Your task to perform on an android device: toggle sleep mode Image 0: 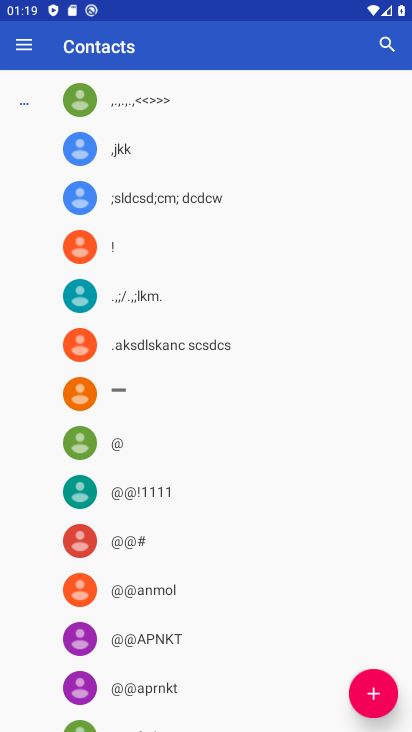
Step 0: press home button
Your task to perform on an android device: toggle sleep mode Image 1: 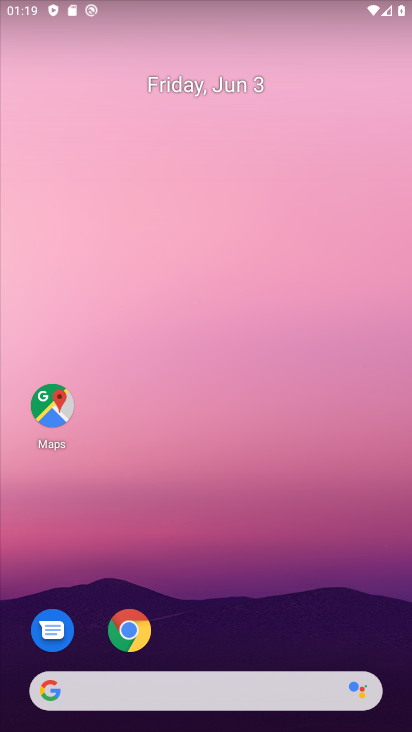
Step 1: drag from (217, 649) to (208, 228)
Your task to perform on an android device: toggle sleep mode Image 2: 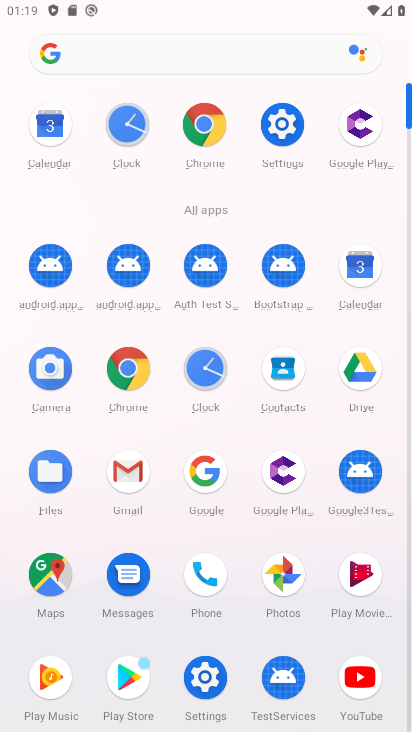
Step 2: click (290, 136)
Your task to perform on an android device: toggle sleep mode Image 3: 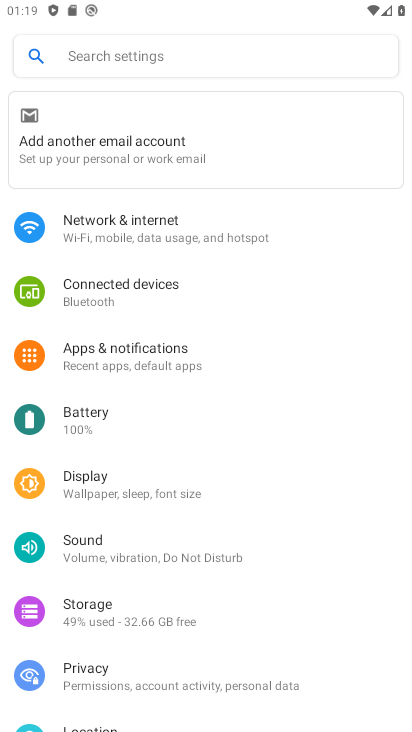
Step 3: click (148, 503)
Your task to perform on an android device: toggle sleep mode Image 4: 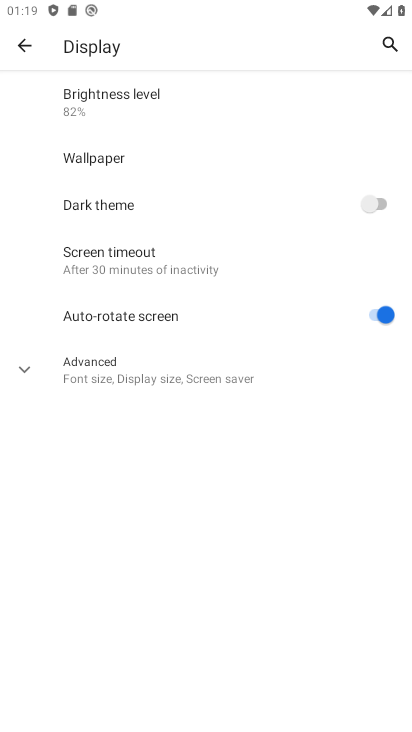
Step 4: click (340, 379)
Your task to perform on an android device: toggle sleep mode Image 5: 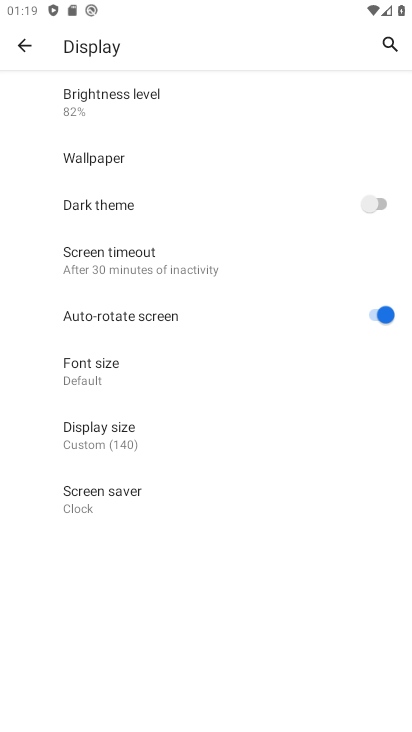
Step 5: task complete